Your task to perform on an android device: install app "Adobe Acrobat Reader" Image 0: 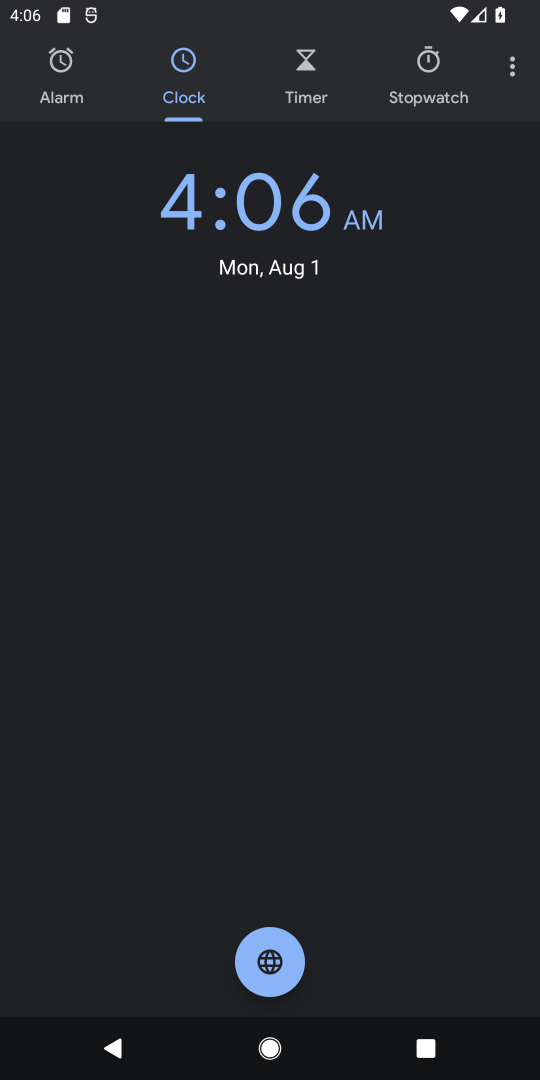
Step 0: press home button
Your task to perform on an android device: install app "Adobe Acrobat Reader" Image 1: 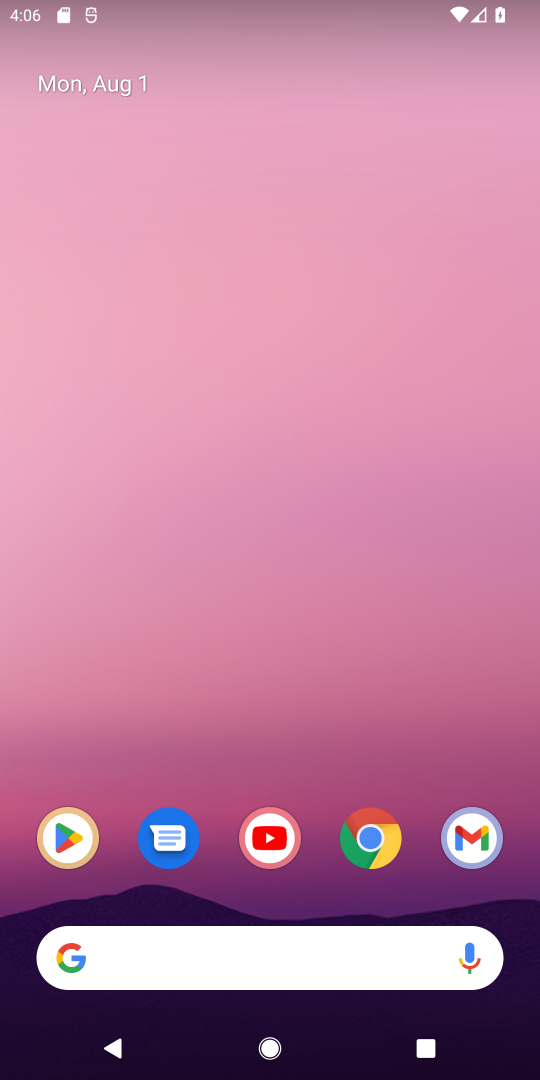
Step 1: click (60, 872)
Your task to perform on an android device: install app "Adobe Acrobat Reader" Image 2: 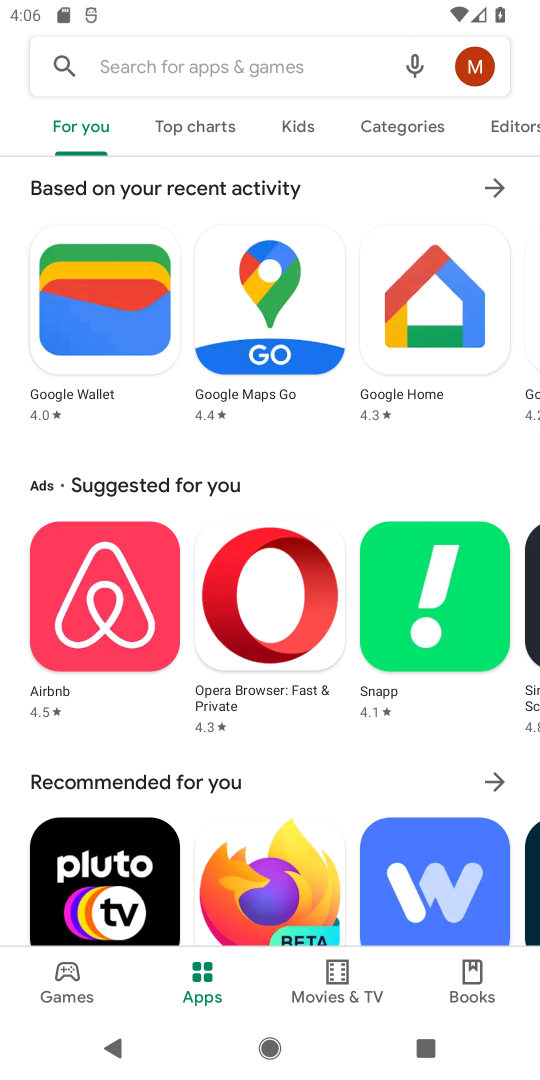
Step 2: click (301, 65)
Your task to perform on an android device: install app "Adobe Acrobat Reader" Image 3: 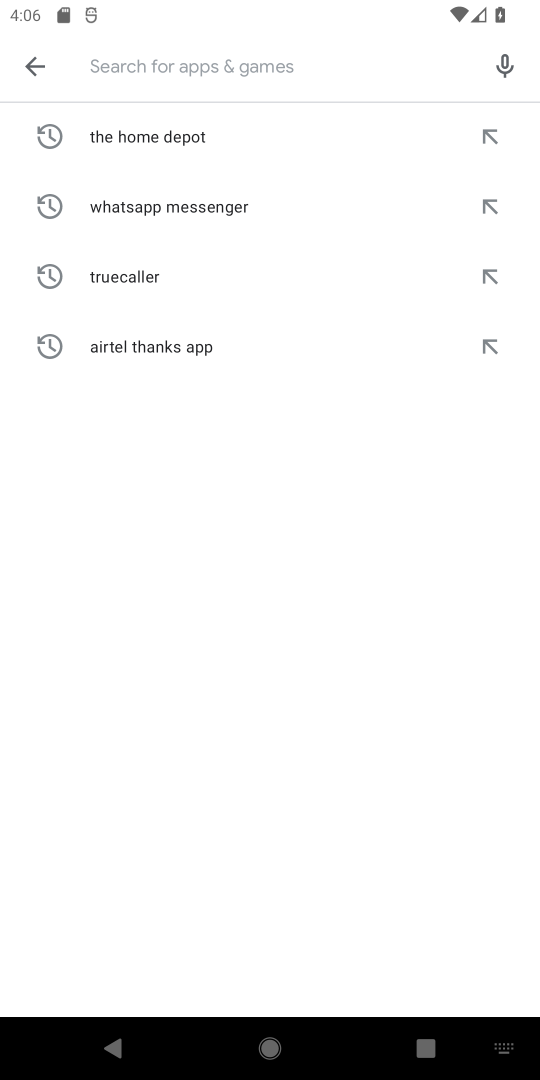
Step 3: type "Adobe Acrobat Reader"
Your task to perform on an android device: install app "Adobe Acrobat Reader" Image 4: 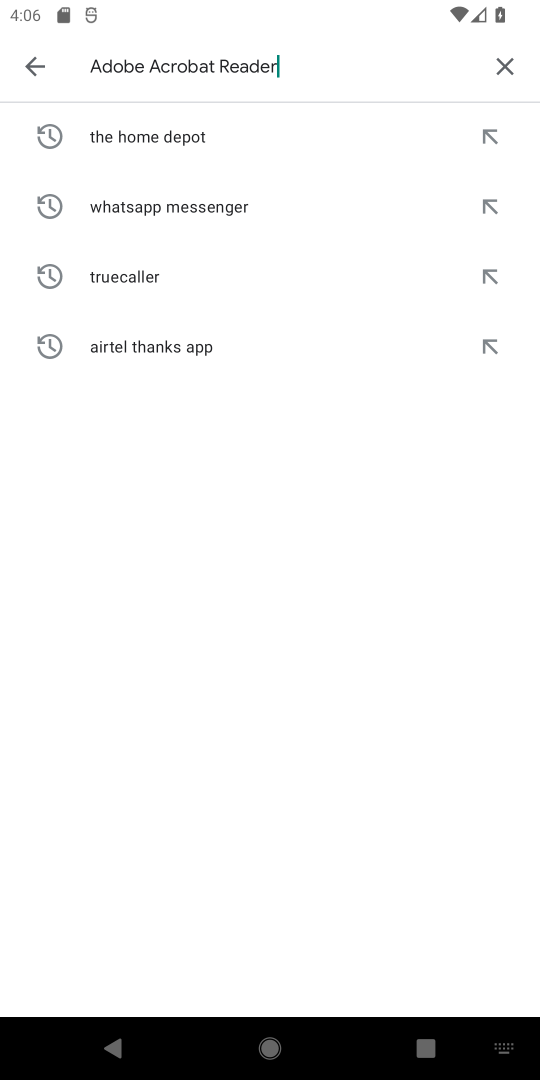
Step 4: type ""
Your task to perform on an android device: install app "Adobe Acrobat Reader" Image 5: 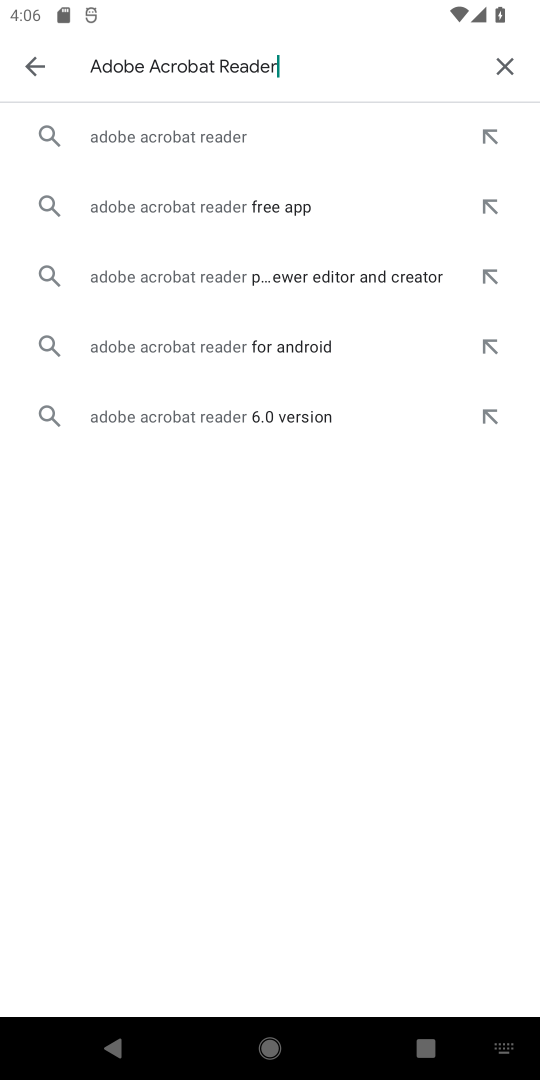
Step 5: click (307, 138)
Your task to perform on an android device: install app "Adobe Acrobat Reader" Image 6: 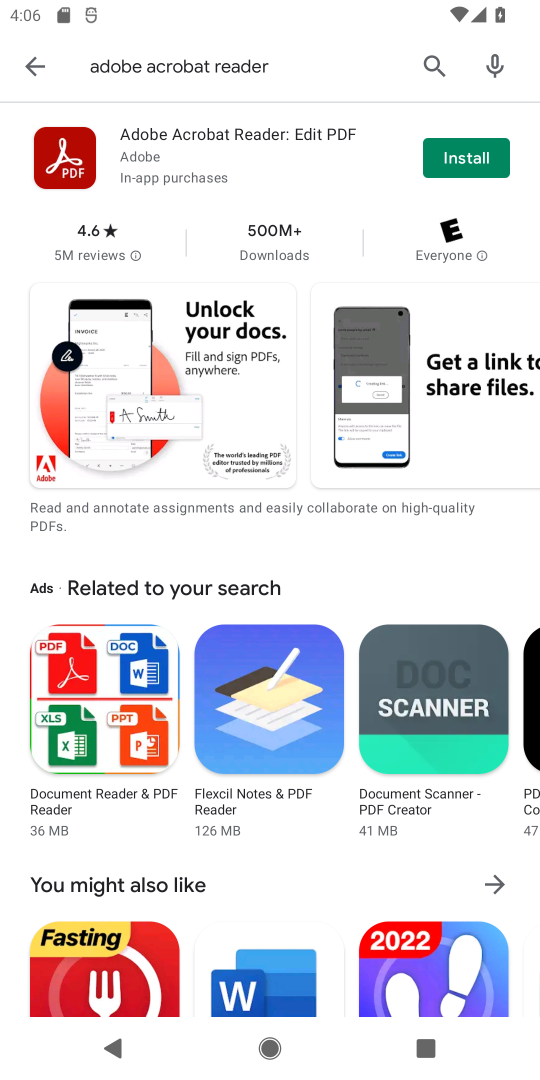
Step 6: click (438, 153)
Your task to perform on an android device: install app "Adobe Acrobat Reader" Image 7: 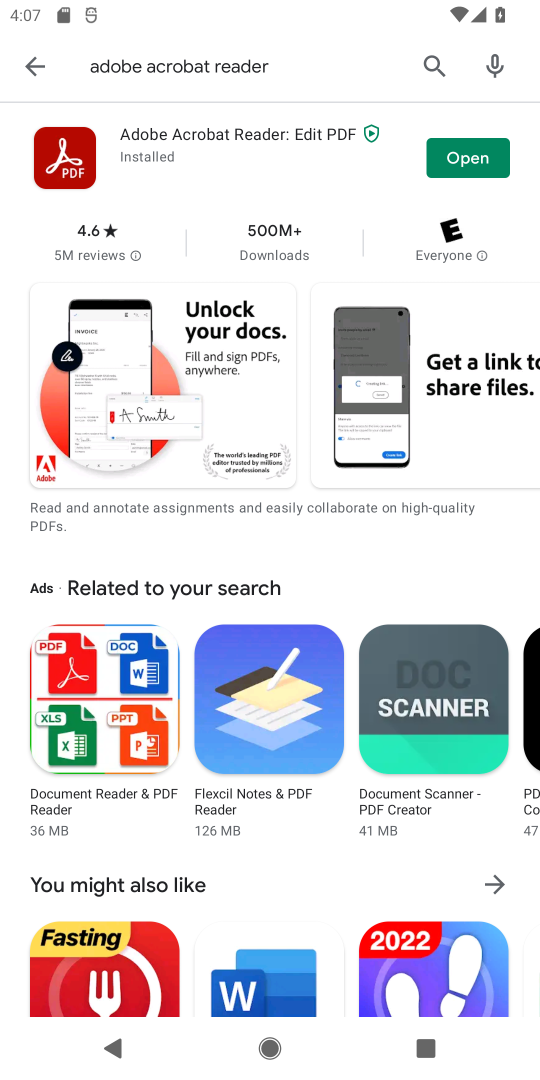
Step 7: task complete